Your task to perform on an android device: Play the last video I watched on Youtube Image 0: 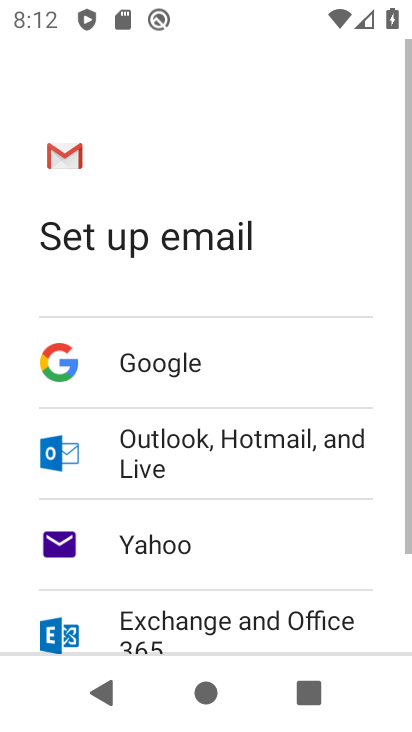
Step 0: press back button
Your task to perform on an android device: Play the last video I watched on Youtube Image 1: 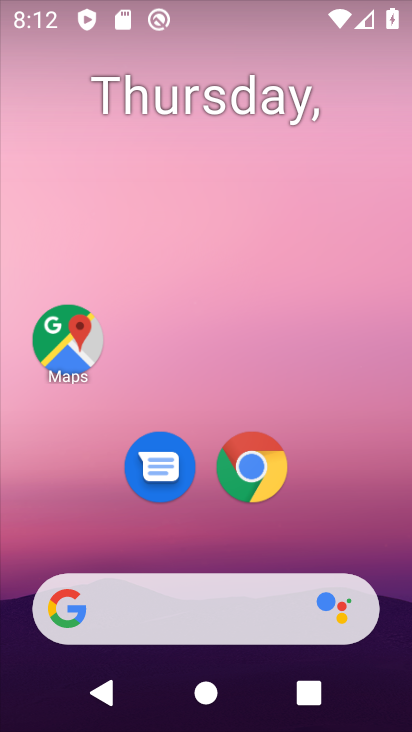
Step 1: drag from (228, 529) to (277, 0)
Your task to perform on an android device: Play the last video I watched on Youtube Image 2: 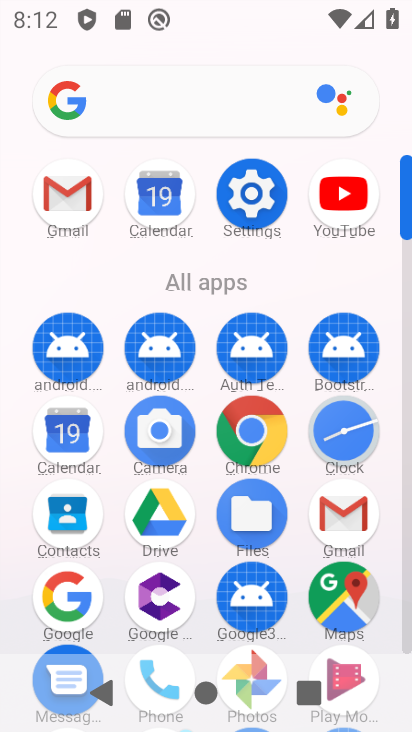
Step 2: click (340, 182)
Your task to perform on an android device: Play the last video I watched on Youtube Image 3: 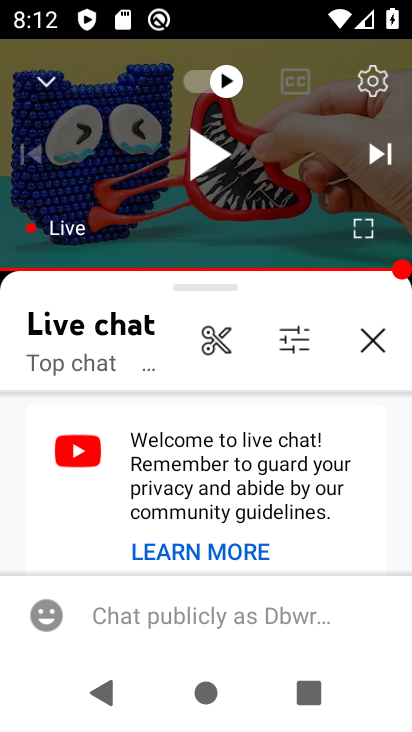
Step 3: click (54, 69)
Your task to perform on an android device: Play the last video I watched on Youtube Image 4: 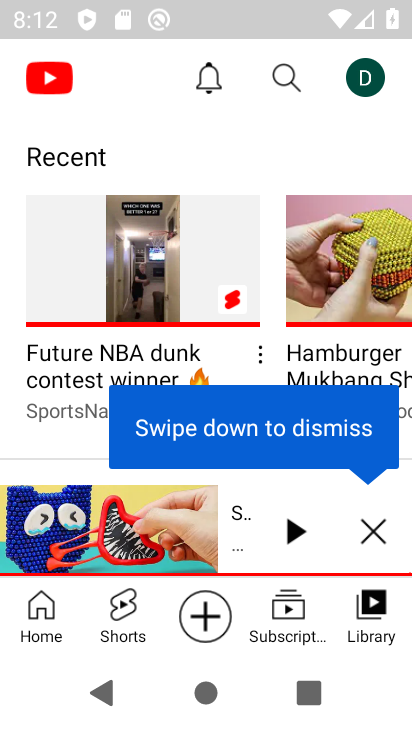
Step 4: click (142, 520)
Your task to perform on an android device: Play the last video I watched on Youtube Image 5: 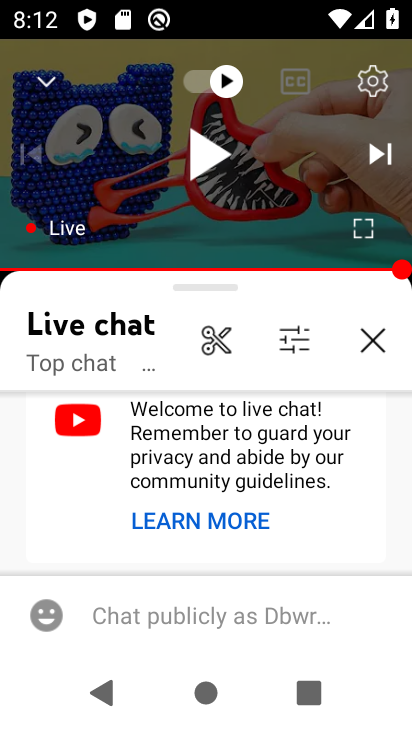
Step 5: click (219, 154)
Your task to perform on an android device: Play the last video I watched on Youtube Image 6: 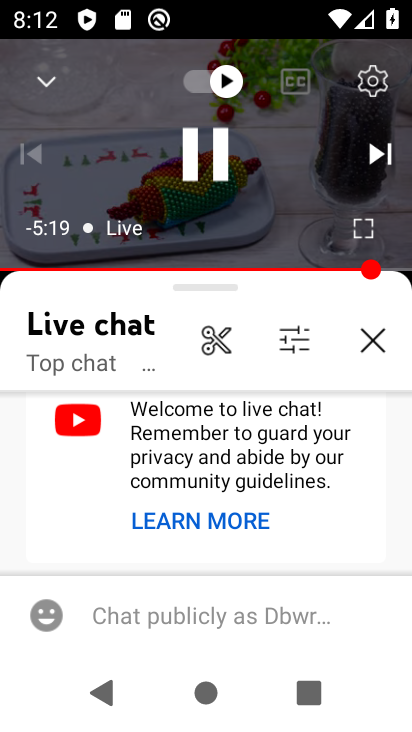
Step 6: task complete